Your task to perform on an android device: Open calendar and show me the second week of next month Image 0: 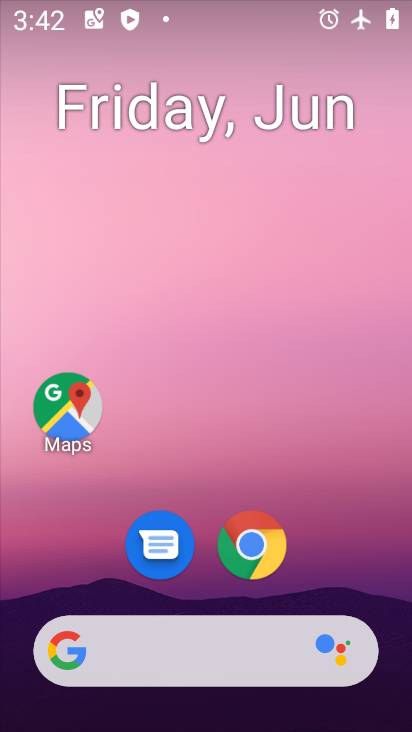
Step 0: drag from (328, 568) to (289, 25)
Your task to perform on an android device: Open calendar and show me the second week of next month Image 1: 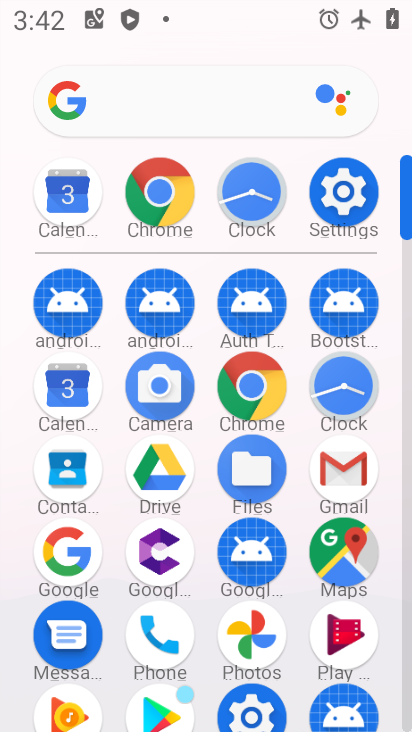
Step 1: click (55, 386)
Your task to perform on an android device: Open calendar and show me the second week of next month Image 2: 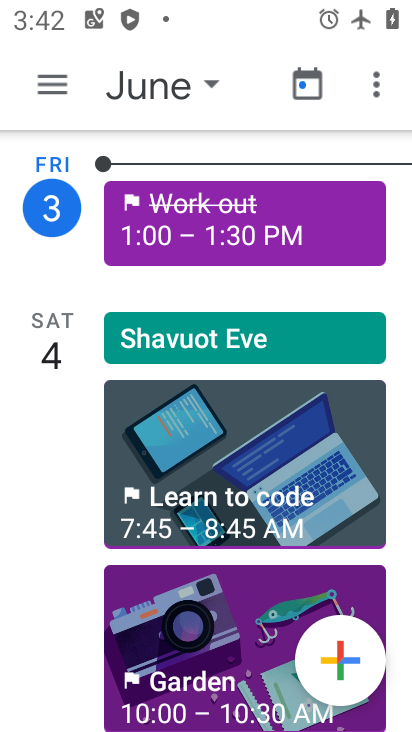
Step 2: click (184, 93)
Your task to perform on an android device: Open calendar and show me the second week of next month Image 3: 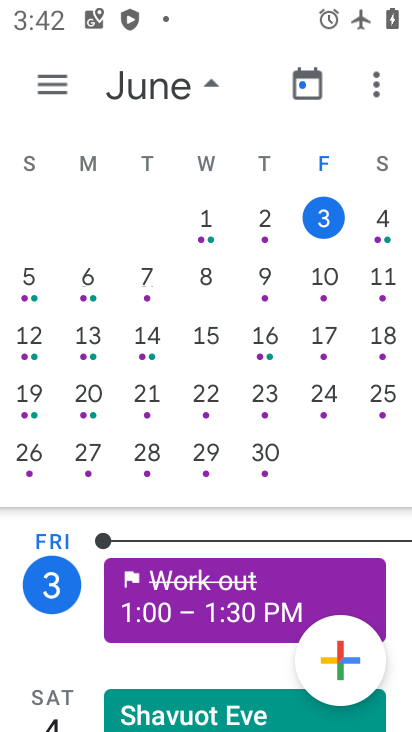
Step 3: drag from (394, 347) to (23, 360)
Your task to perform on an android device: Open calendar and show me the second week of next month Image 4: 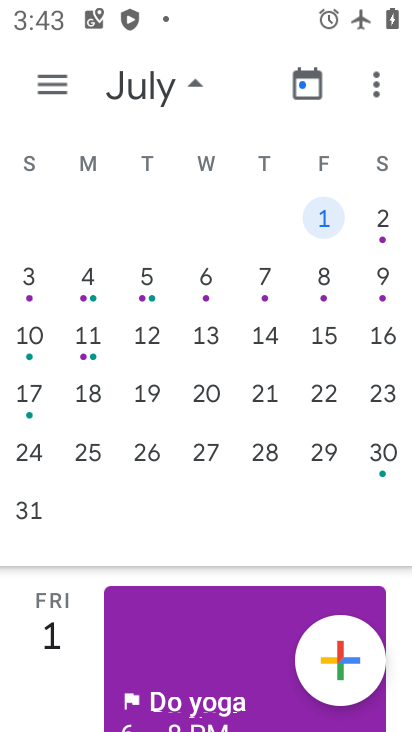
Step 4: click (45, 289)
Your task to perform on an android device: Open calendar and show me the second week of next month Image 5: 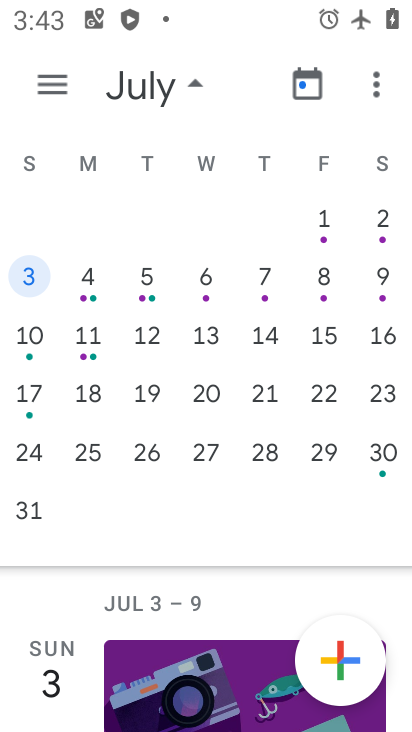
Step 5: task complete